Your task to perform on an android device: Go to display settings Image 0: 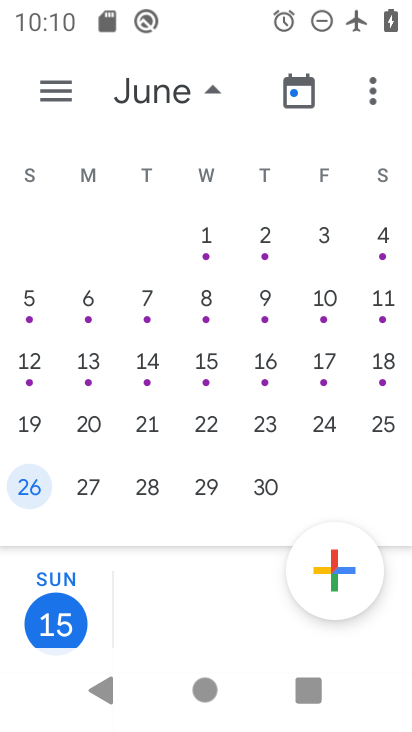
Step 0: press home button
Your task to perform on an android device: Go to display settings Image 1: 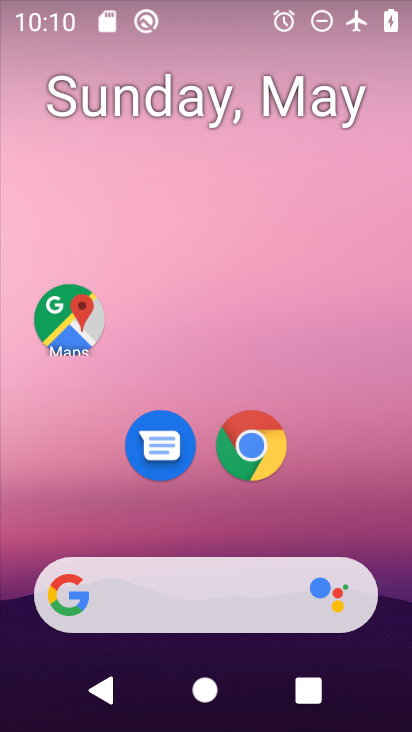
Step 1: drag from (248, 624) to (380, 56)
Your task to perform on an android device: Go to display settings Image 2: 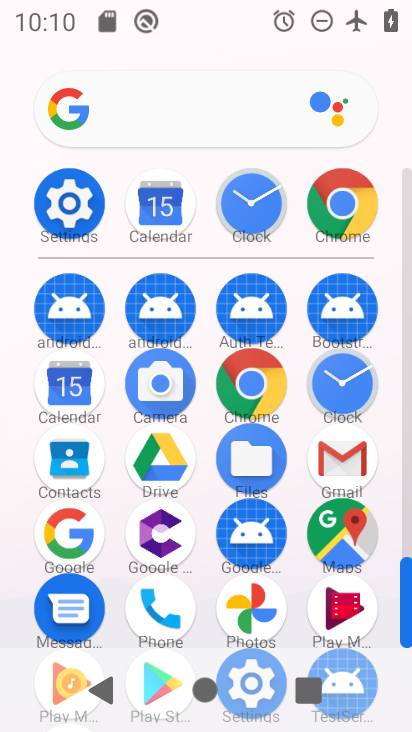
Step 2: click (81, 221)
Your task to perform on an android device: Go to display settings Image 3: 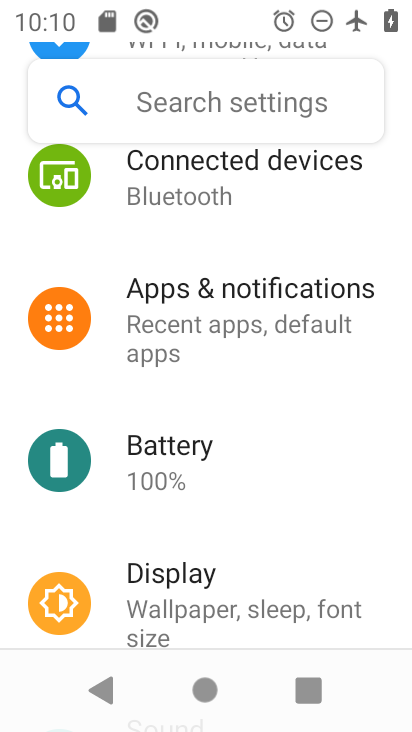
Step 3: click (241, 584)
Your task to perform on an android device: Go to display settings Image 4: 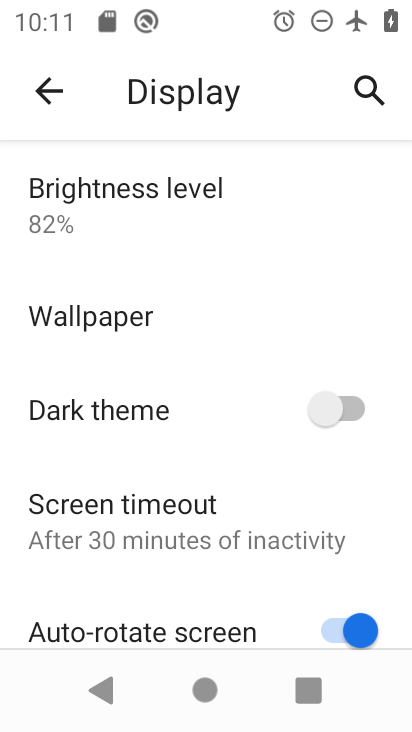
Step 4: task complete